Your task to perform on an android device: turn off wifi Image 0: 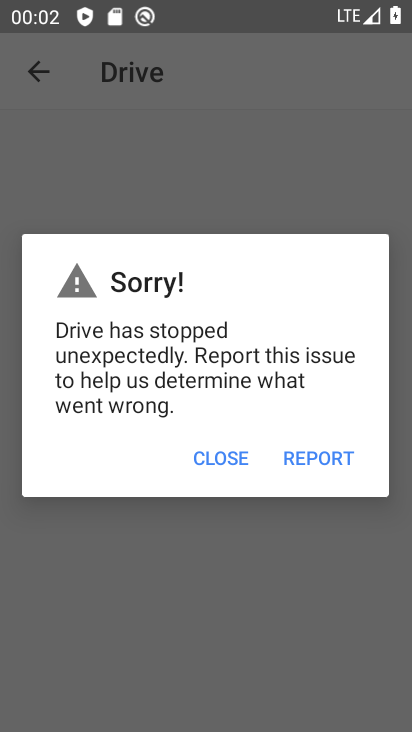
Step 0: press home button
Your task to perform on an android device: turn off wifi Image 1: 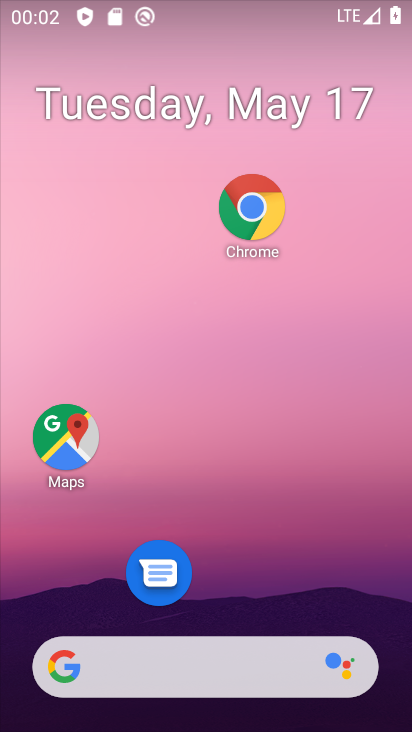
Step 1: drag from (287, 677) to (300, 65)
Your task to perform on an android device: turn off wifi Image 2: 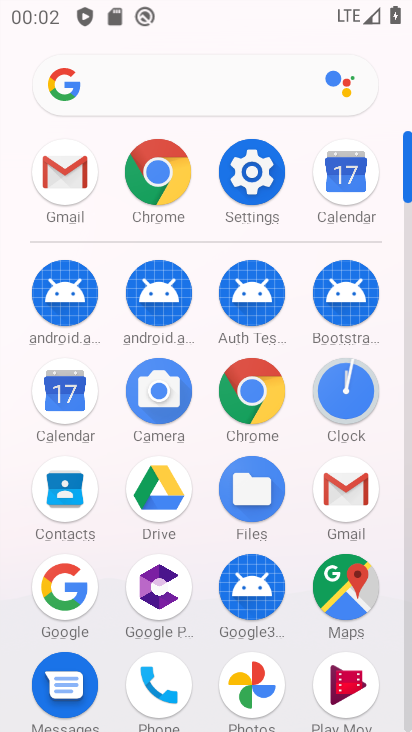
Step 2: click (270, 182)
Your task to perform on an android device: turn off wifi Image 3: 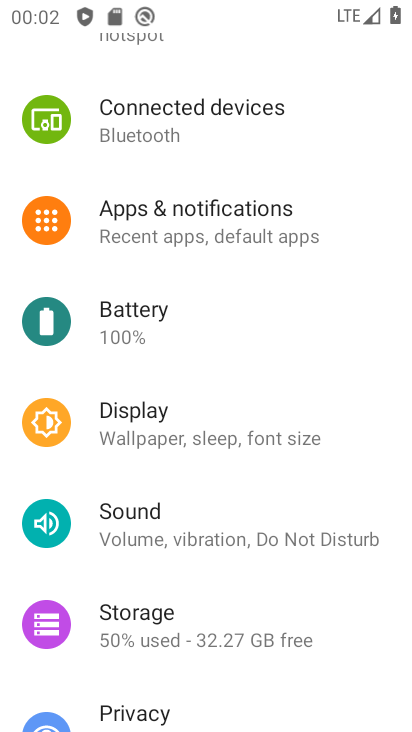
Step 3: drag from (147, 172) to (236, 620)
Your task to perform on an android device: turn off wifi Image 4: 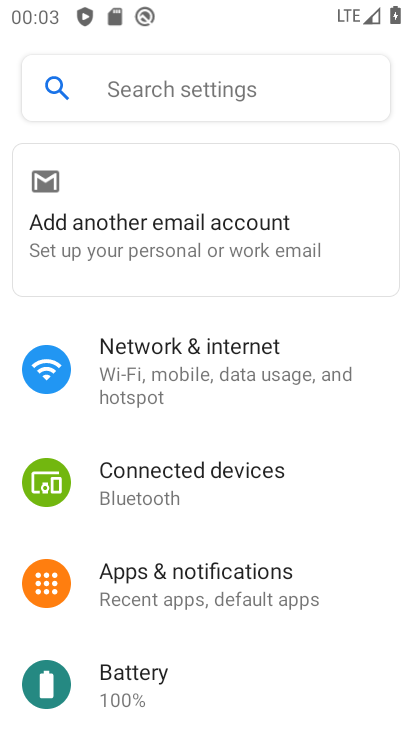
Step 4: click (185, 383)
Your task to perform on an android device: turn off wifi Image 5: 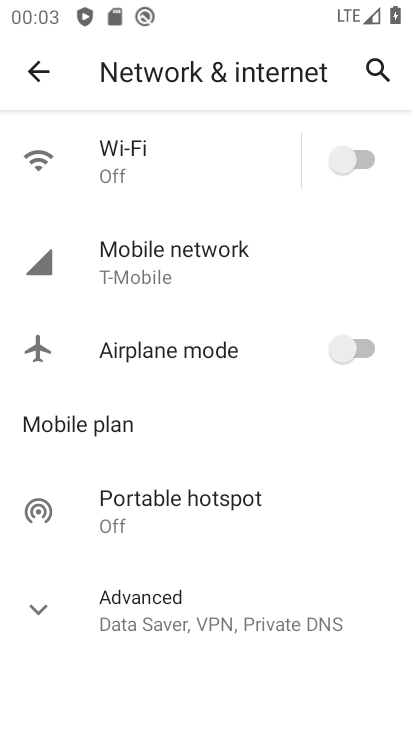
Step 5: click (166, 171)
Your task to perform on an android device: turn off wifi Image 6: 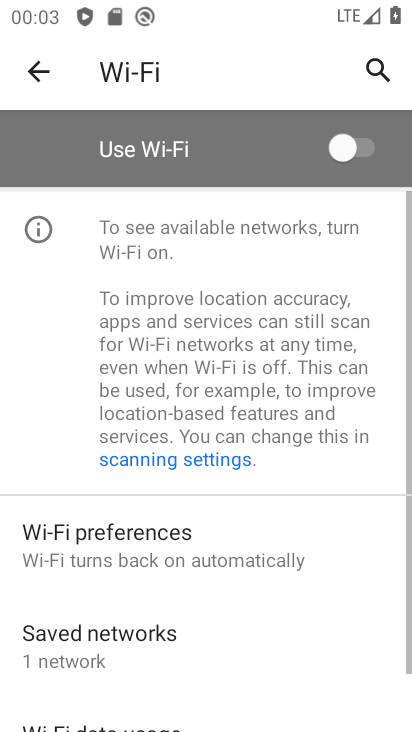
Step 6: task complete